Your task to perform on an android device: change alarm snooze length Image 0: 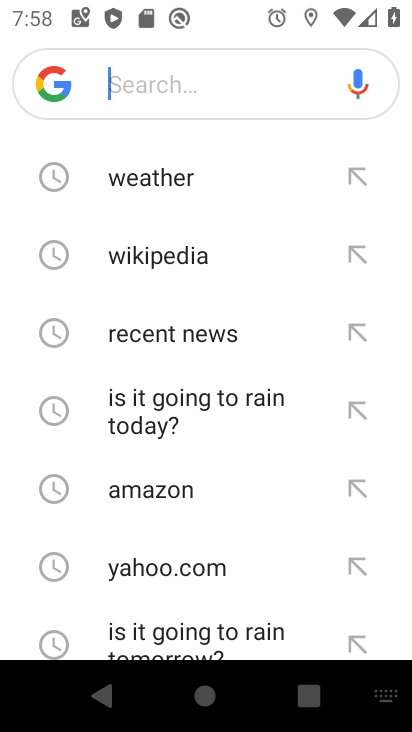
Step 0: press home button
Your task to perform on an android device: change alarm snooze length Image 1: 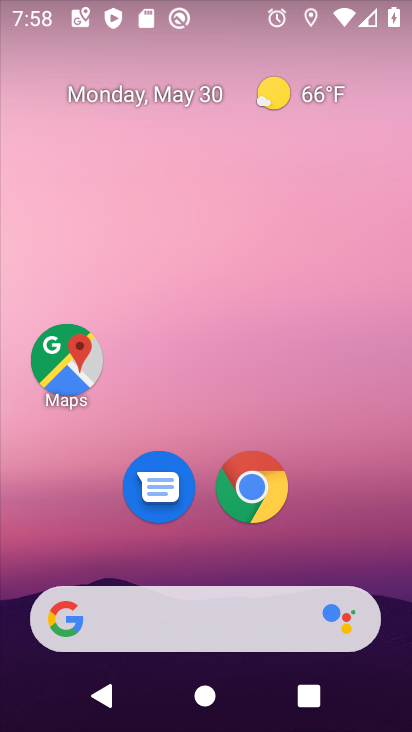
Step 1: drag from (346, 549) to (375, 88)
Your task to perform on an android device: change alarm snooze length Image 2: 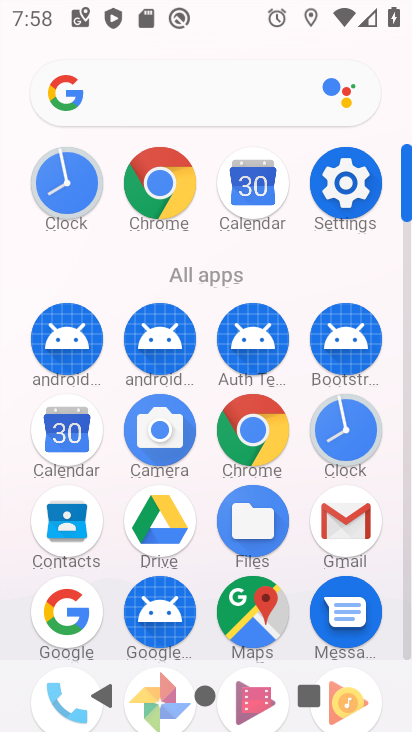
Step 2: click (360, 442)
Your task to perform on an android device: change alarm snooze length Image 3: 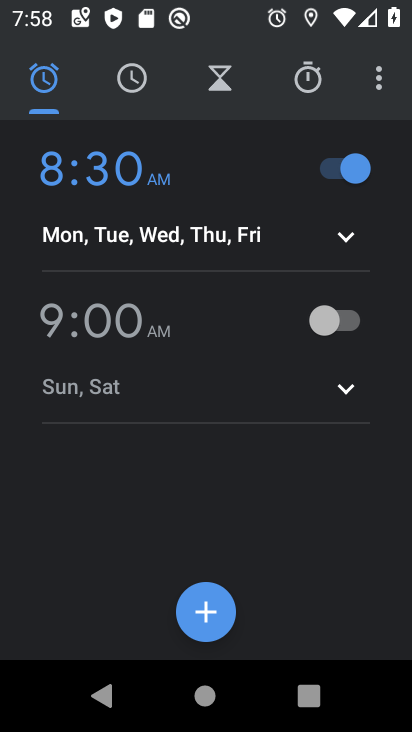
Step 3: click (380, 78)
Your task to perform on an android device: change alarm snooze length Image 4: 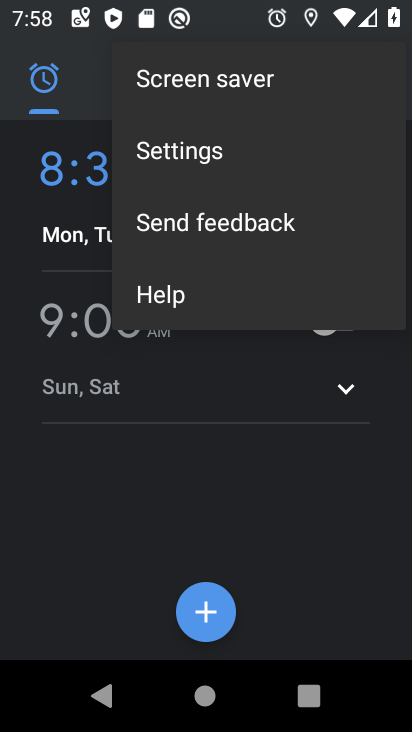
Step 4: click (182, 162)
Your task to perform on an android device: change alarm snooze length Image 5: 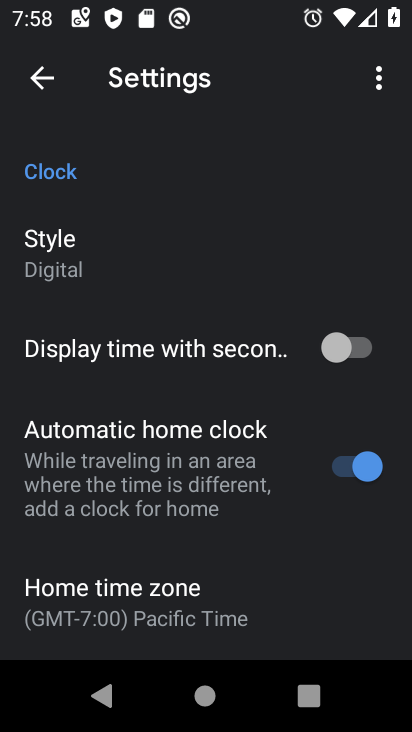
Step 5: drag from (234, 568) to (233, 71)
Your task to perform on an android device: change alarm snooze length Image 6: 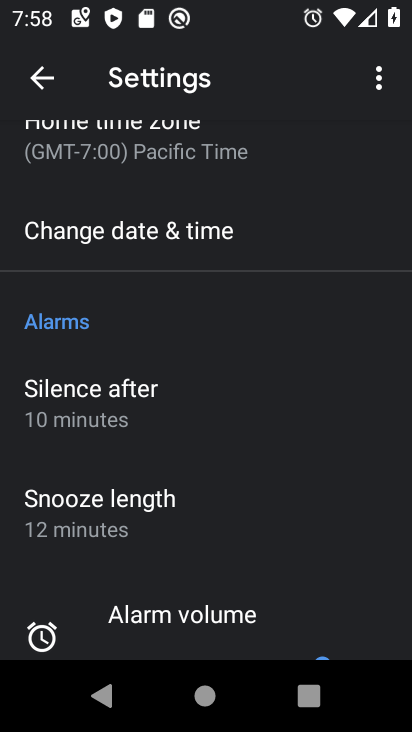
Step 6: click (77, 492)
Your task to perform on an android device: change alarm snooze length Image 7: 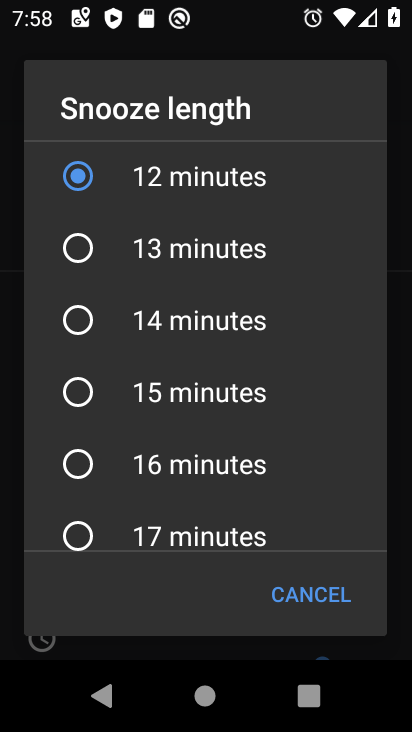
Step 7: click (90, 465)
Your task to perform on an android device: change alarm snooze length Image 8: 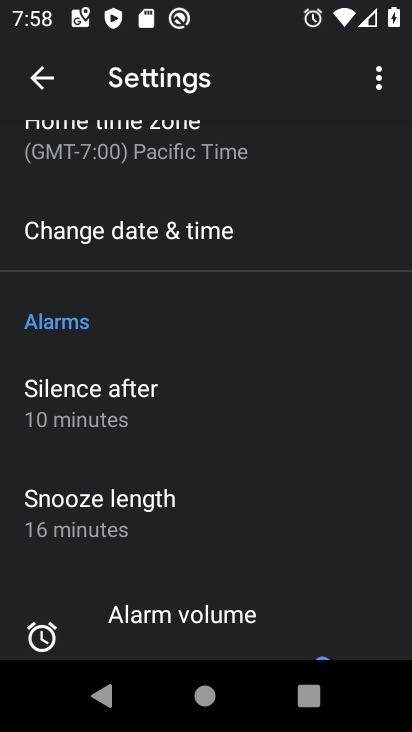
Step 8: task complete